Your task to perform on an android device: move a message to another label in the gmail app Image 0: 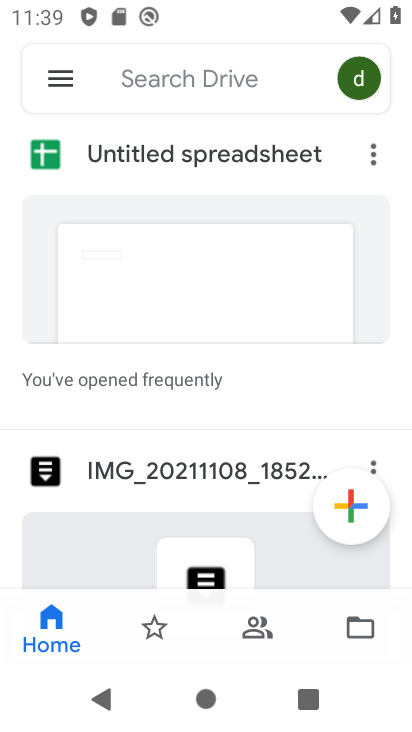
Step 0: press home button
Your task to perform on an android device: move a message to another label in the gmail app Image 1: 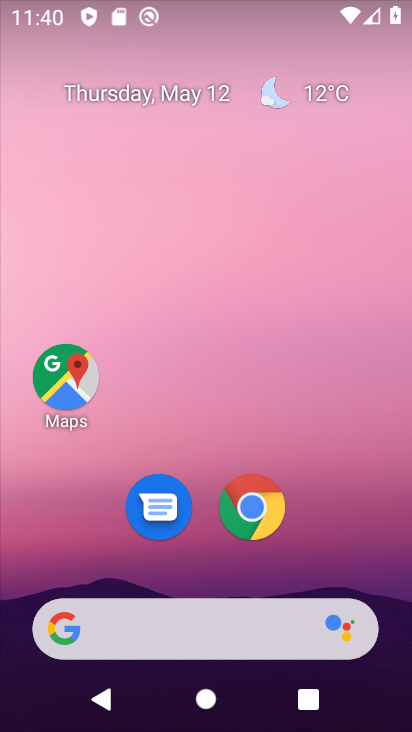
Step 1: drag from (319, 548) to (331, 189)
Your task to perform on an android device: move a message to another label in the gmail app Image 2: 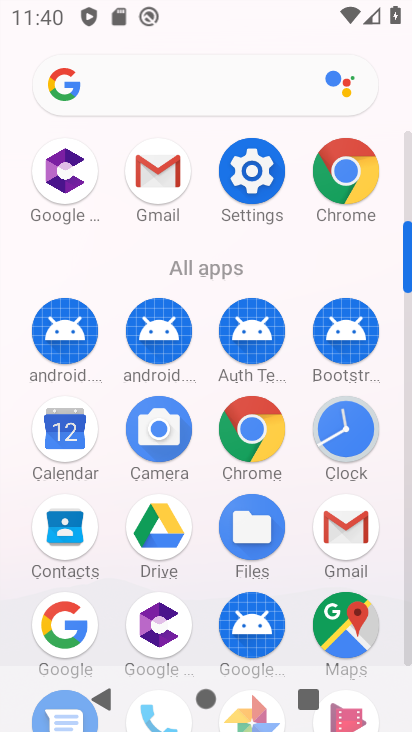
Step 2: click (357, 542)
Your task to perform on an android device: move a message to another label in the gmail app Image 3: 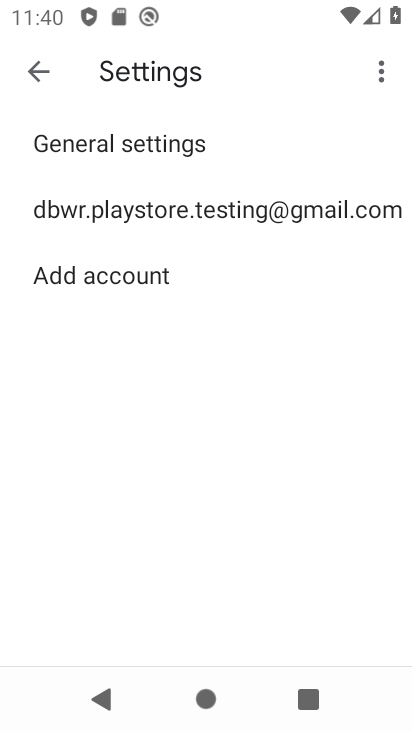
Step 3: click (276, 225)
Your task to perform on an android device: move a message to another label in the gmail app Image 4: 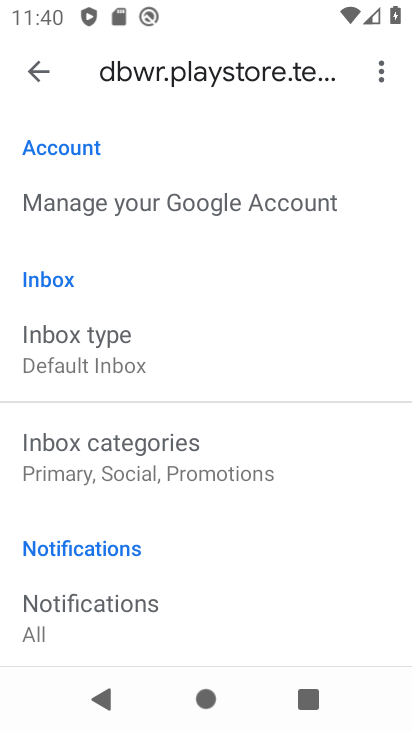
Step 4: task complete